Your task to perform on an android device: change the clock display to analog Image 0: 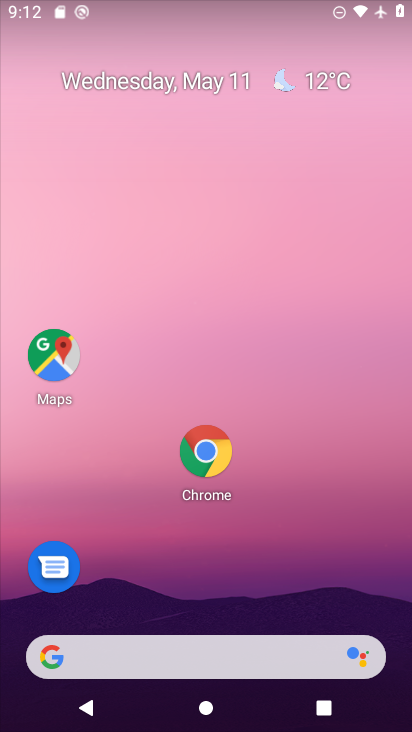
Step 0: press home button
Your task to perform on an android device: change the clock display to analog Image 1: 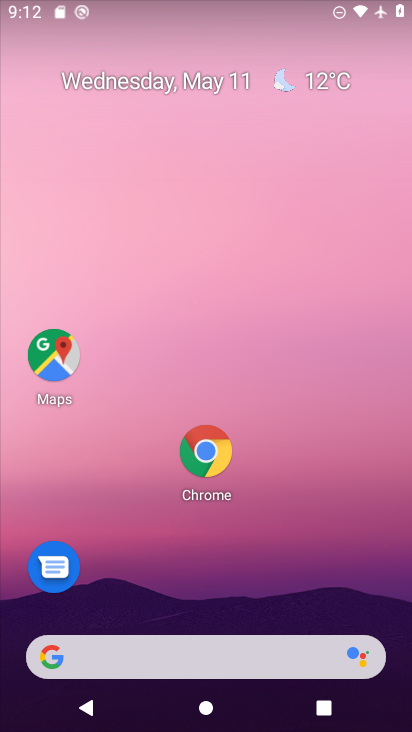
Step 1: drag from (187, 645) to (296, 152)
Your task to perform on an android device: change the clock display to analog Image 2: 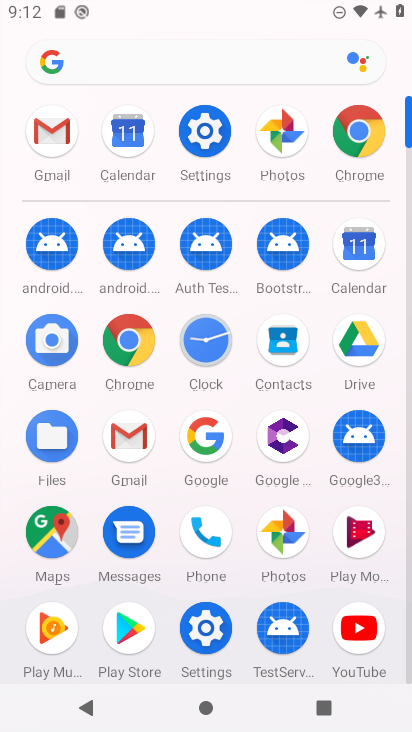
Step 2: click (212, 341)
Your task to perform on an android device: change the clock display to analog Image 3: 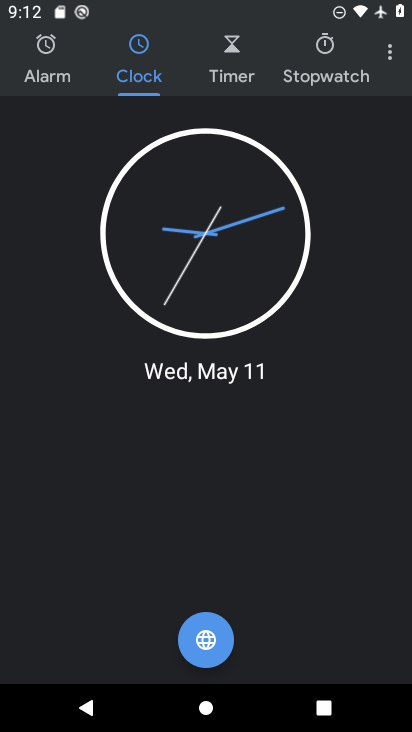
Step 3: click (391, 45)
Your task to perform on an android device: change the clock display to analog Image 4: 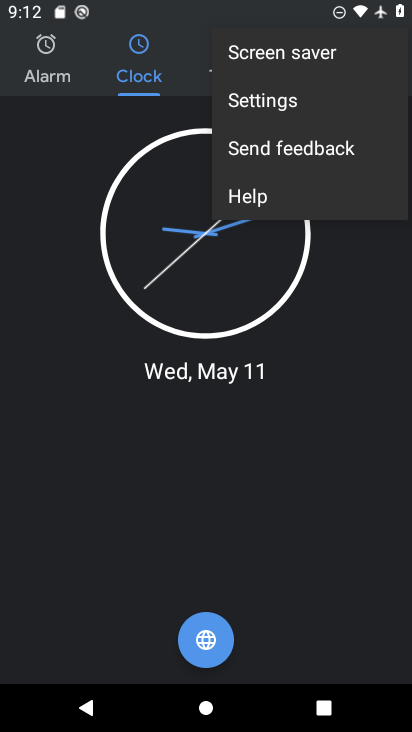
Step 4: click (273, 104)
Your task to perform on an android device: change the clock display to analog Image 5: 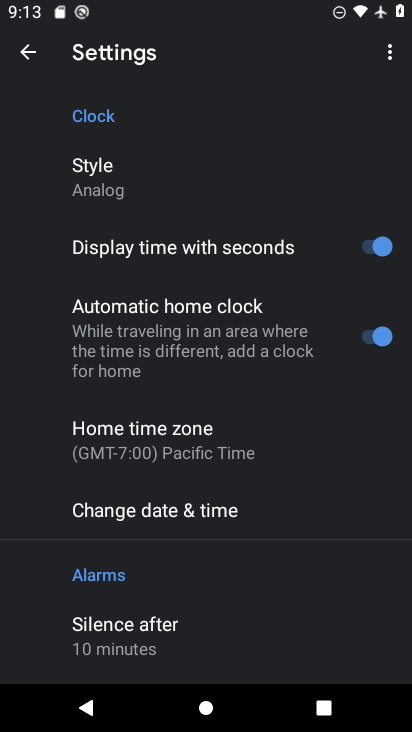
Step 5: task complete